Your task to perform on an android device: delete location history Image 0: 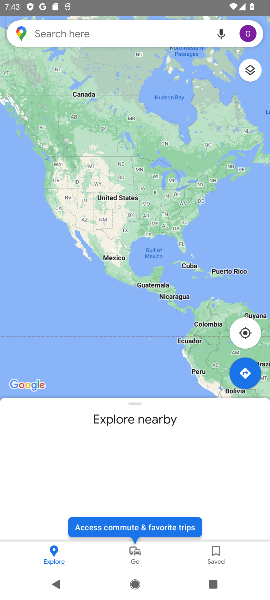
Step 0: press home button
Your task to perform on an android device: delete location history Image 1: 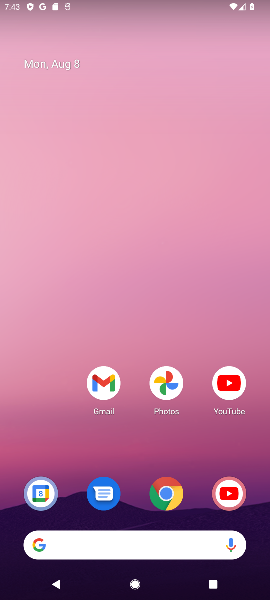
Step 1: drag from (115, 547) to (71, 207)
Your task to perform on an android device: delete location history Image 2: 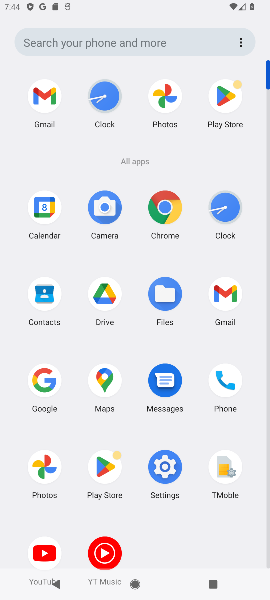
Step 2: click (99, 377)
Your task to perform on an android device: delete location history Image 3: 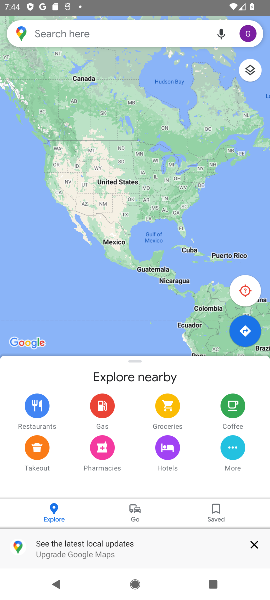
Step 3: click (249, 33)
Your task to perform on an android device: delete location history Image 4: 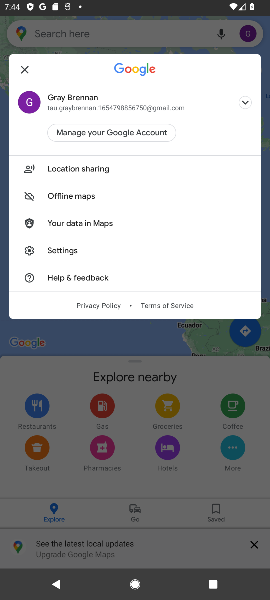
Step 4: click (50, 251)
Your task to perform on an android device: delete location history Image 5: 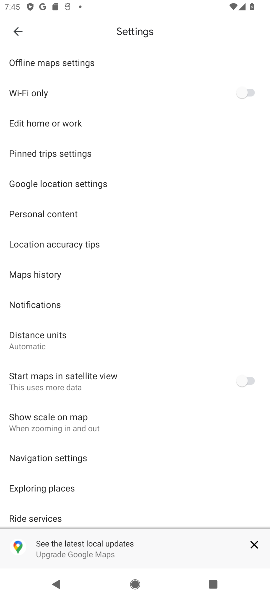
Step 5: click (22, 269)
Your task to perform on an android device: delete location history Image 6: 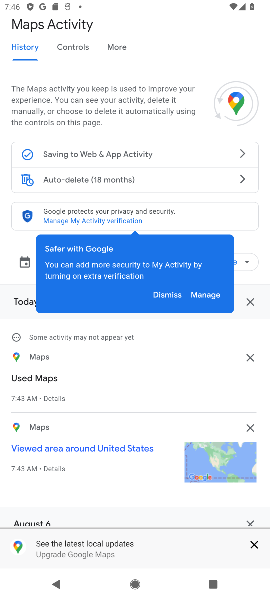
Step 6: click (174, 297)
Your task to perform on an android device: delete location history Image 7: 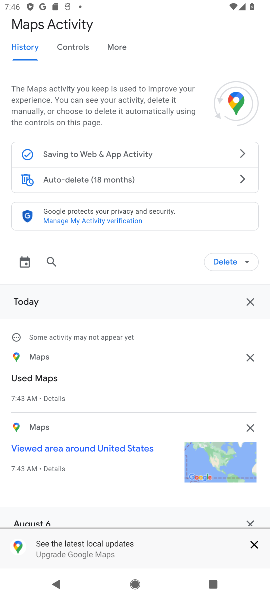
Step 7: drag from (141, 440) to (32, 2)
Your task to perform on an android device: delete location history Image 8: 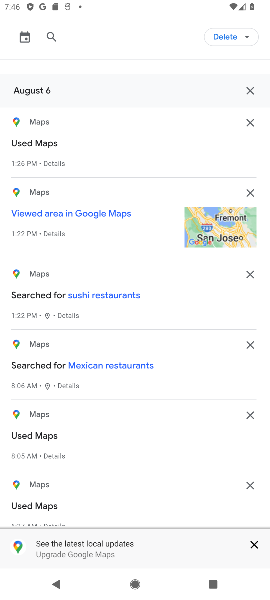
Step 8: click (232, 39)
Your task to perform on an android device: delete location history Image 9: 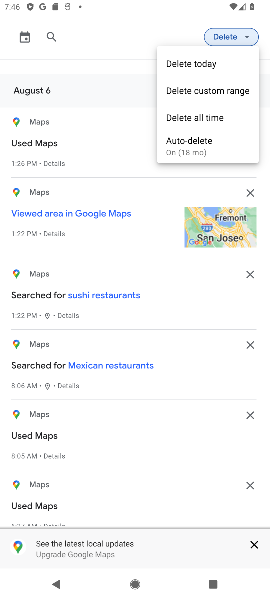
Step 9: click (212, 67)
Your task to perform on an android device: delete location history Image 10: 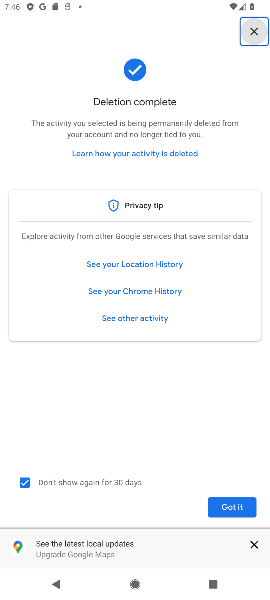
Step 10: task complete